Your task to perform on an android device: Open Google Image 0: 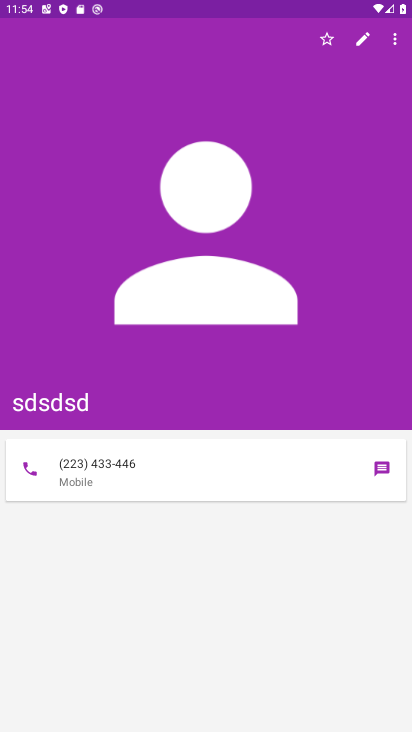
Step 0: press home button
Your task to perform on an android device: Open Google Image 1: 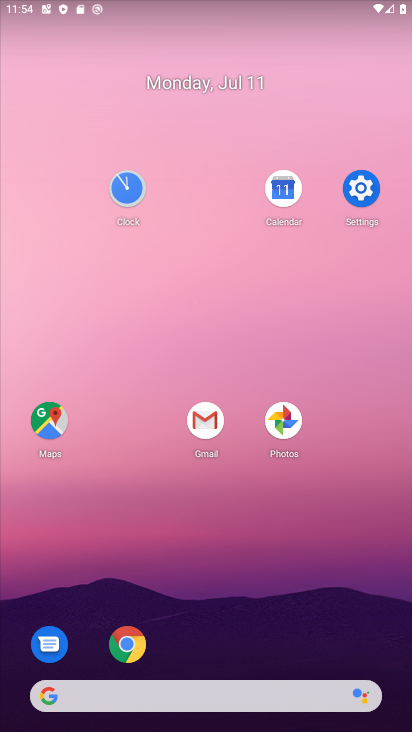
Step 1: drag from (204, 609) to (166, 159)
Your task to perform on an android device: Open Google Image 2: 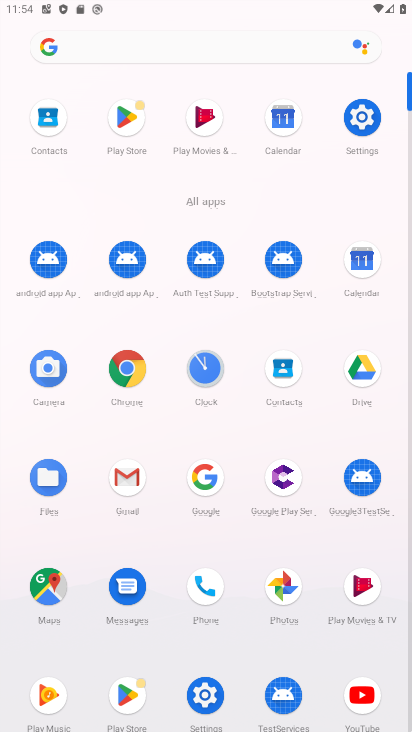
Step 2: click (207, 477)
Your task to perform on an android device: Open Google Image 3: 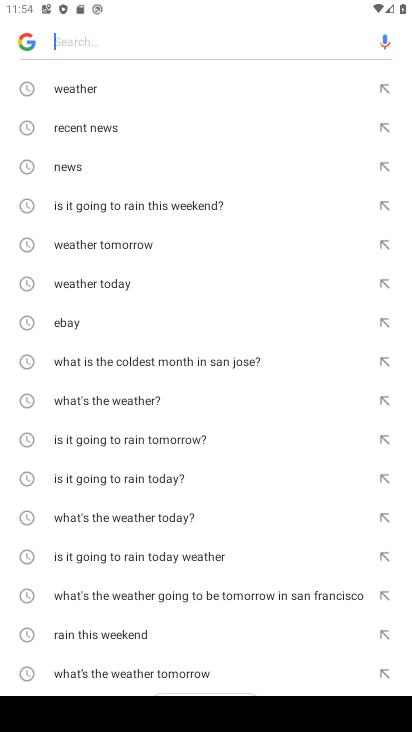
Step 3: task complete